Your task to perform on an android device: open app "Facebook" (install if not already installed), go to login, and select forgot password Image 0: 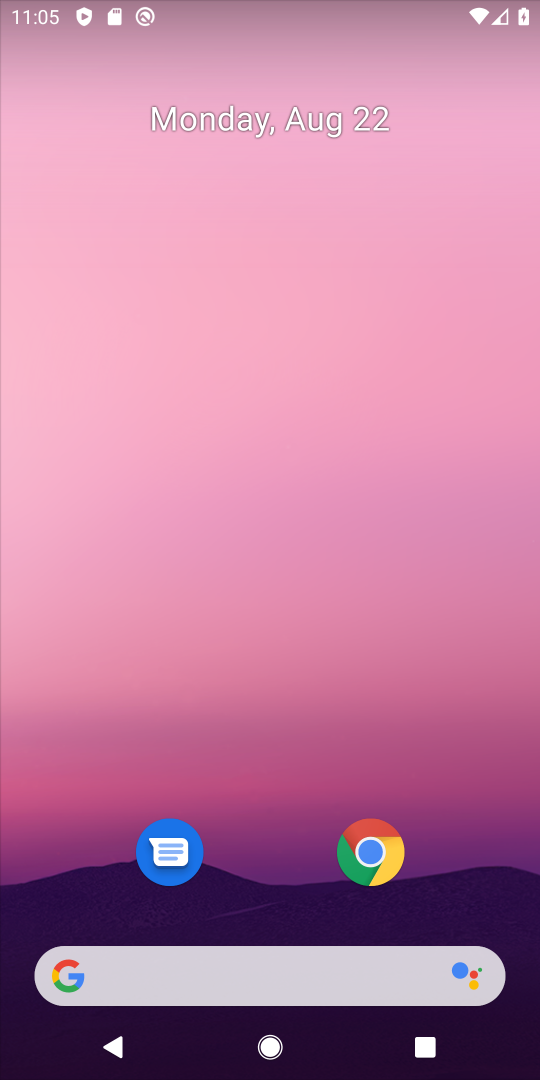
Step 0: drag from (253, 724) to (339, 160)
Your task to perform on an android device: open app "Facebook" (install if not already installed), go to login, and select forgot password Image 1: 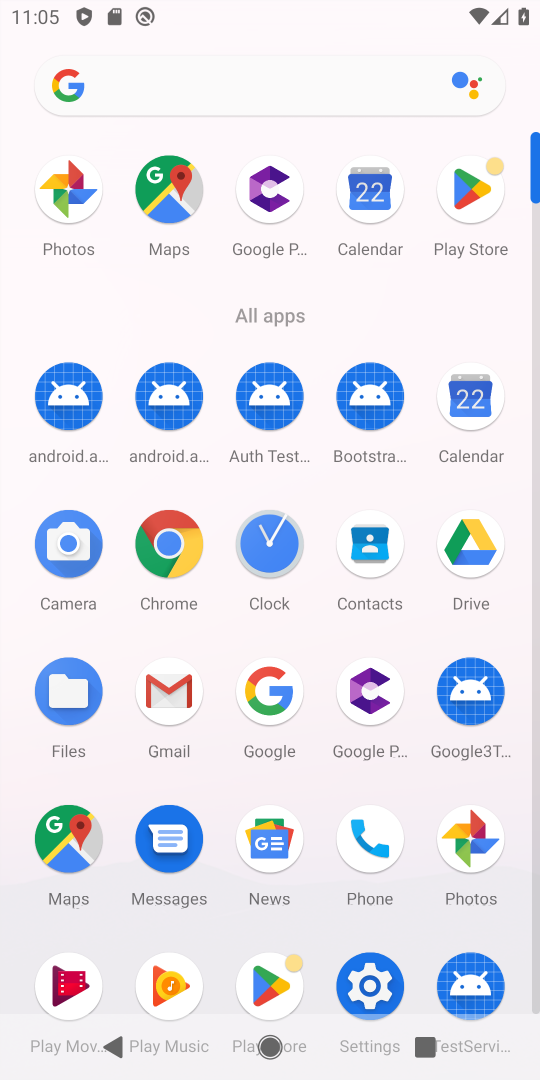
Step 1: click (464, 210)
Your task to perform on an android device: open app "Facebook" (install if not already installed), go to login, and select forgot password Image 2: 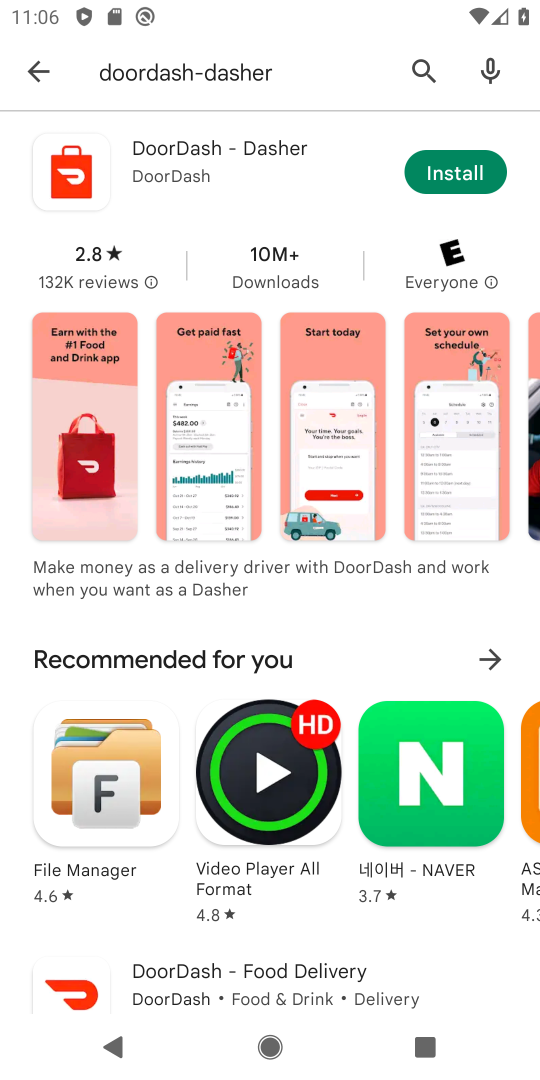
Step 2: click (163, 80)
Your task to perform on an android device: open app "Facebook" (install if not already installed), go to login, and select forgot password Image 3: 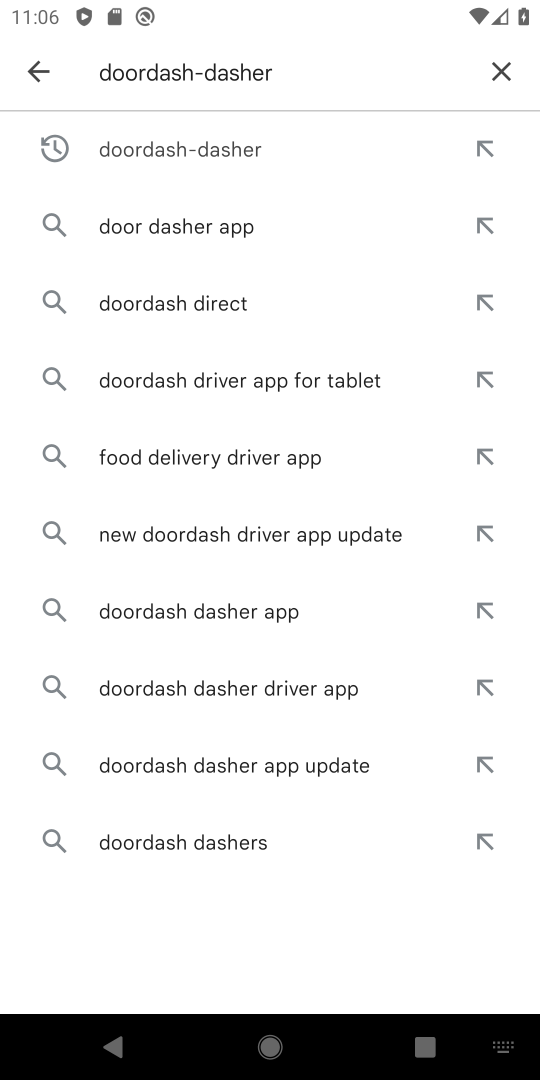
Step 3: click (485, 71)
Your task to perform on an android device: open app "Facebook" (install if not already installed), go to login, and select forgot password Image 4: 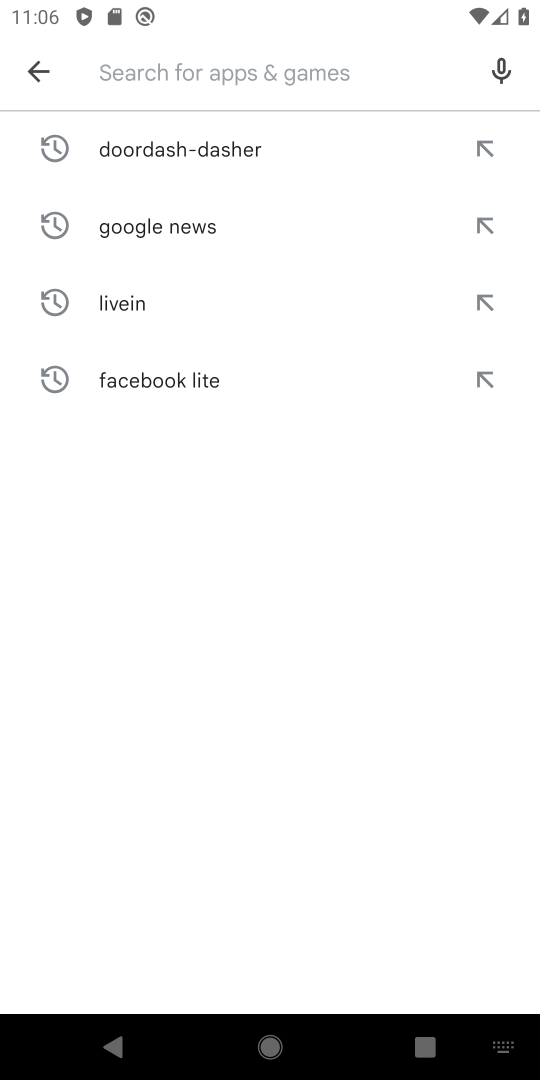
Step 4: type "facebook"
Your task to perform on an android device: open app "Facebook" (install if not already installed), go to login, and select forgot password Image 5: 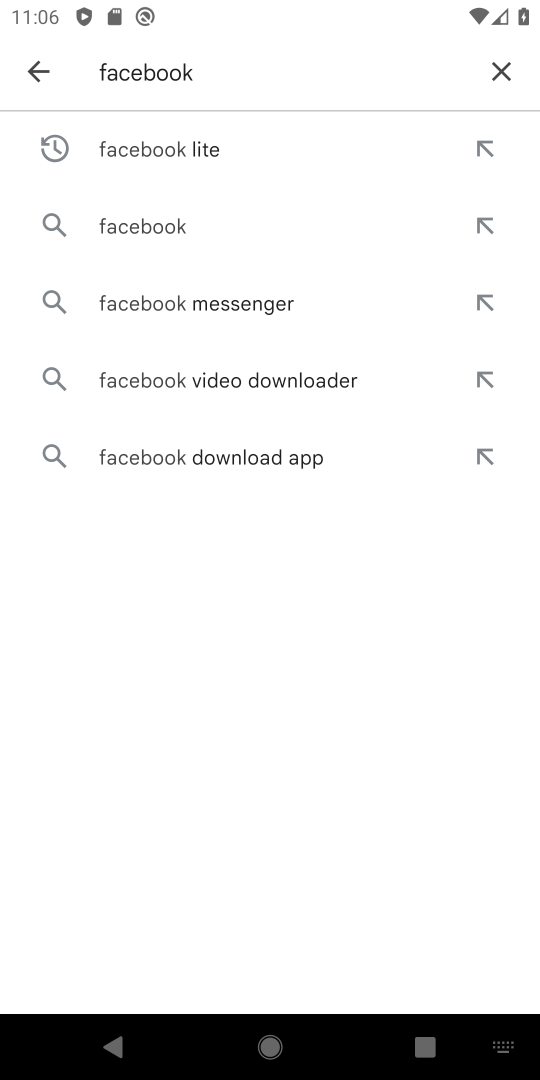
Step 5: click (175, 237)
Your task to perform on an android device: open app "Facebook" (install if not already installed), go to login, and select forgot password Image 6: 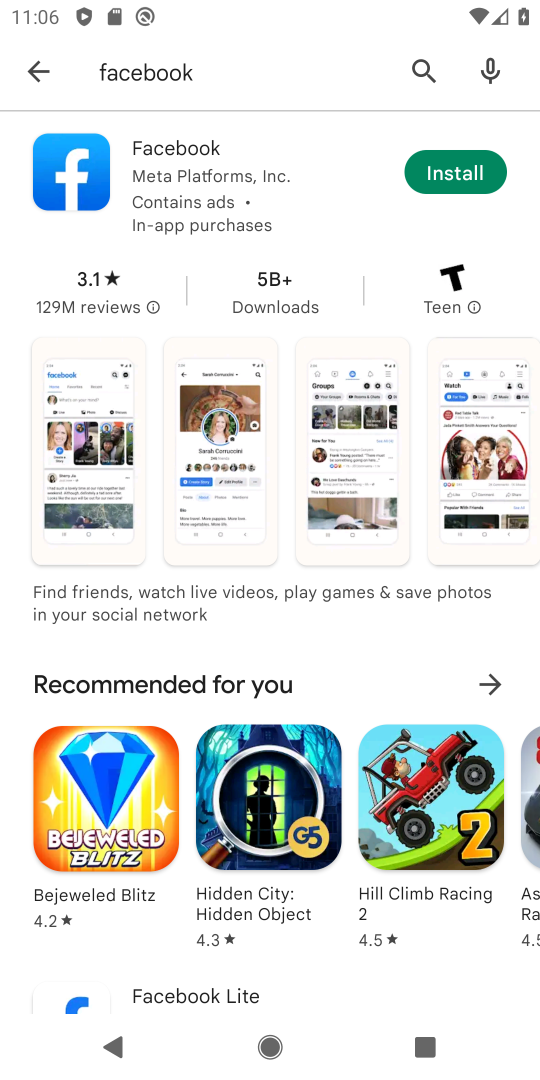
Step 6: click (455, 175)
Your task to perform on an android device: open app "Facebook" (install if not already installed), go to login, and select forgot password Image 7: 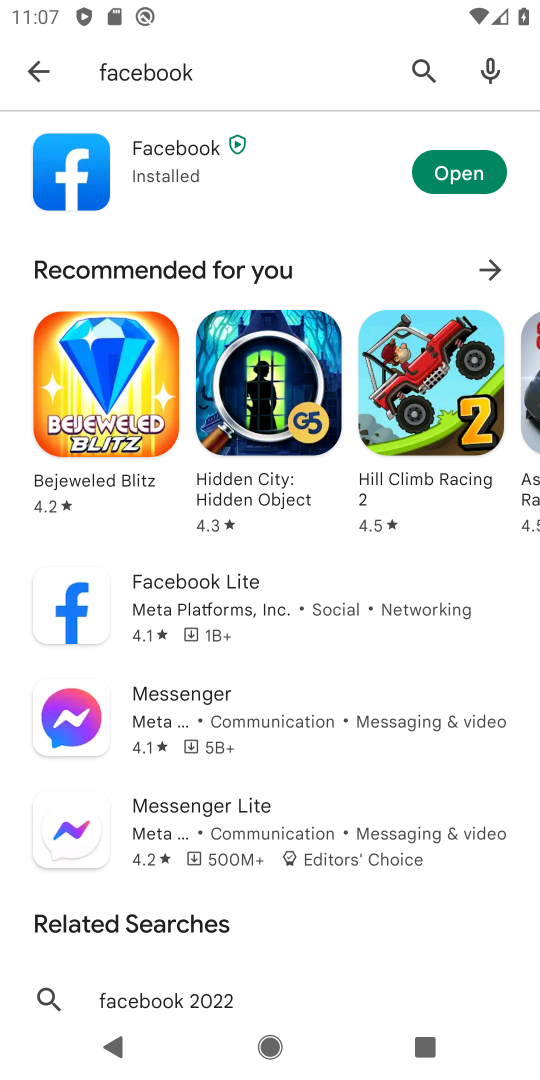
Step 7: click (456, 182)
Your task to perform on an android device: open app "Facebook" (install if not already installed), go to login, and select forgot password Image 8: 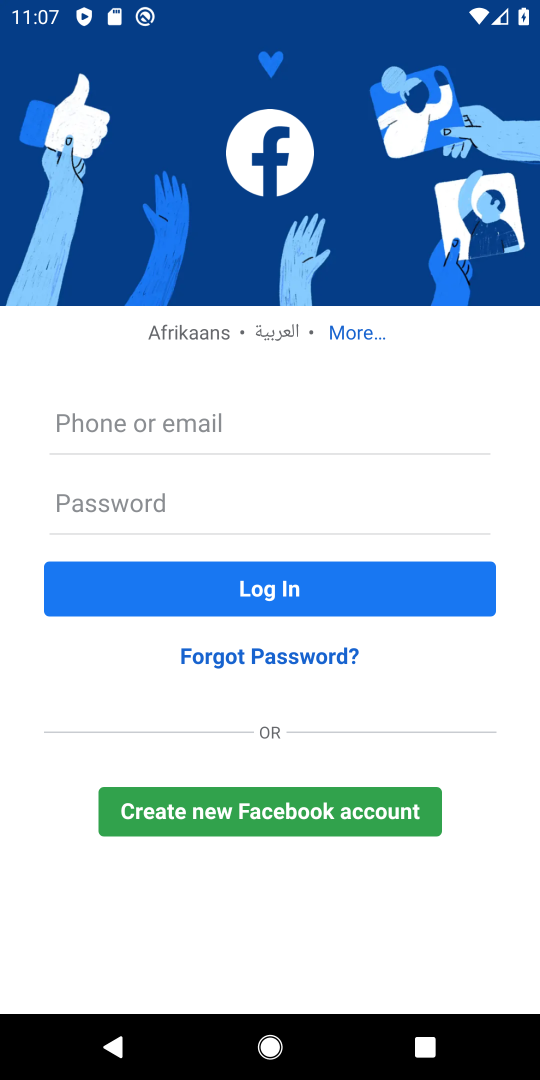
Step 8: click (290, 657)
Your task to perform on an android device: open app "Facebook" (install if not already installed), go to login, and select forgot password Image 9: 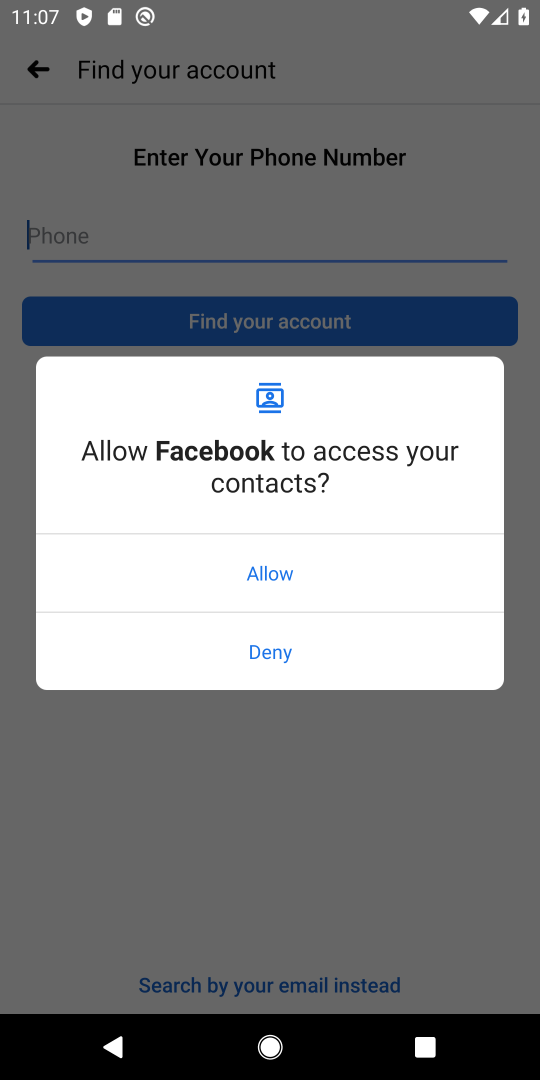
Step 9: click (306, 572)
Your task to perform on an android device: open app "Facebook" (install if not already installed), go to login, and select forgot password Image 10: 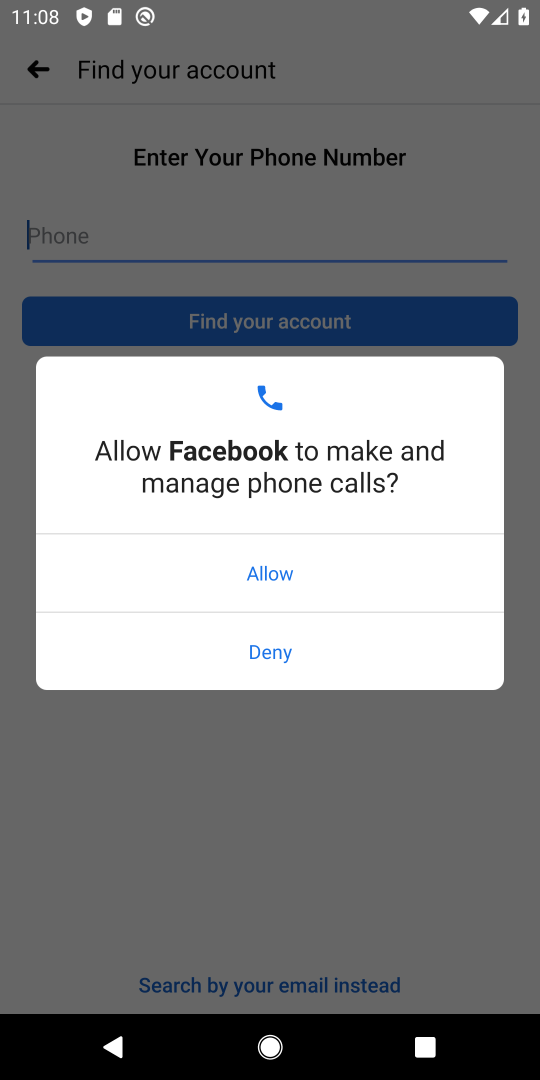
Step 10: click (306, 572)
Your task to perform on an android device: open app "Facebook" (install if not already installed), go to login, and select forgot password Image 11: 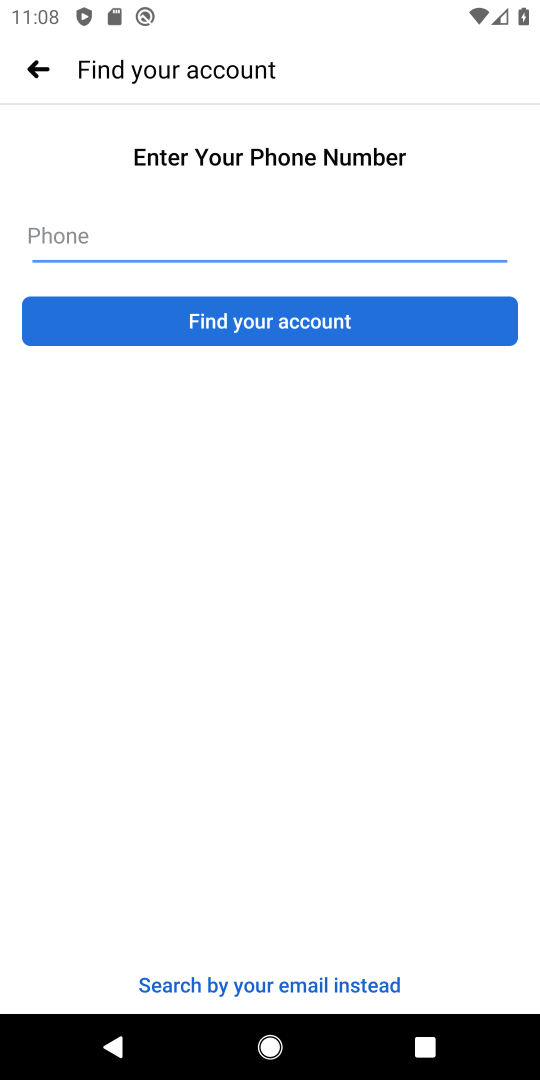
Step 11: task complete